Your task to perform on an android device: turn off picture-in-picture Image 0: 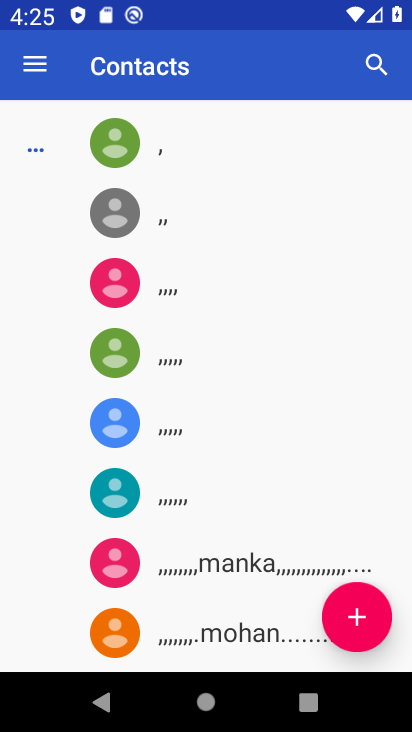
Step 0: press home button
Your task to perform on an android device: turn off picture-in-picture Image 1: 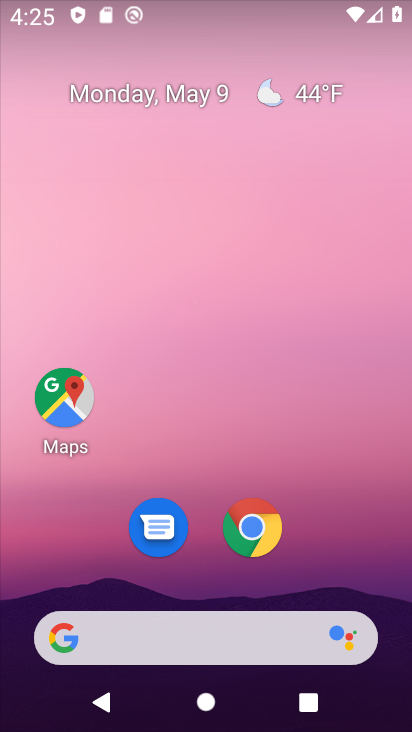
Step 1: click (253, 531)
Your task to perform on an android device: turn off picture-in-picture Image 2: 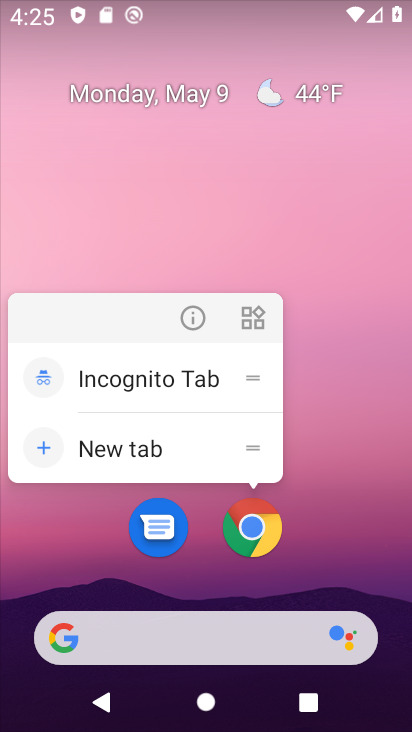
Step 2: click (191, 310)
Your task to perform on an android device: turn off picture-in-picture Image 3: 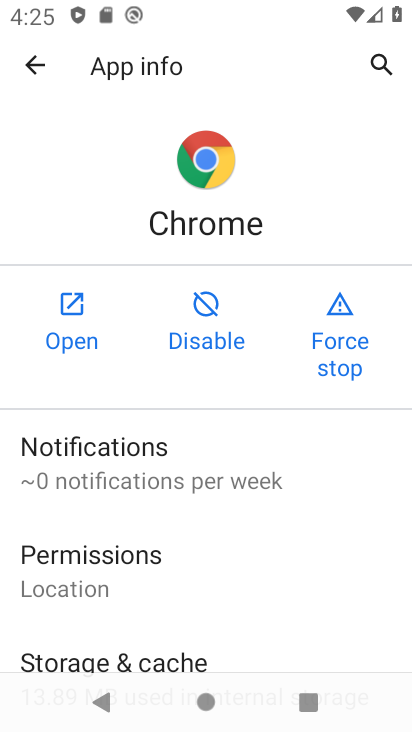
Step 3: drag from (138, 648) to (153, 45)
Your task to perform on an android device: turn off picture-in-picture Image 4: 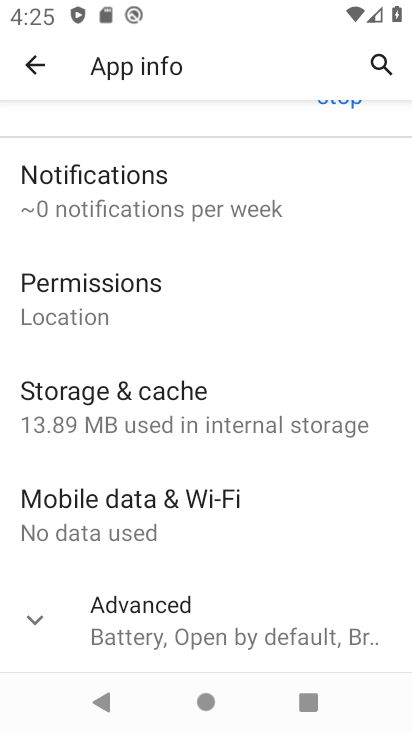
Step 4: click (132, 619)
Your task to perform on an android device: turn off picture-in-picture Image 5: 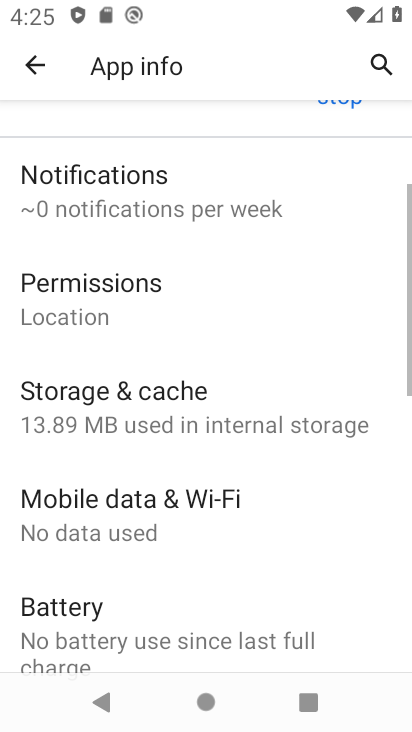
Step 5: drag from (132, 619) to (226, 101)
Your task to perform on an android device: turn off picture-in-picture Image 6: 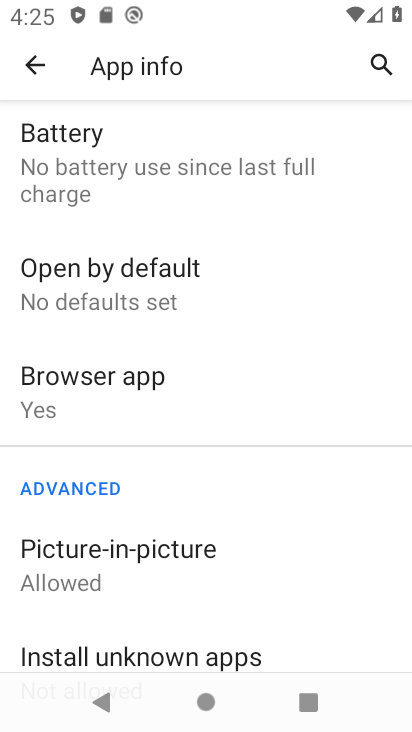
Step 6: click (142, 596)
Your task to perform on an android device: turn off picture-in-picture Image 7: 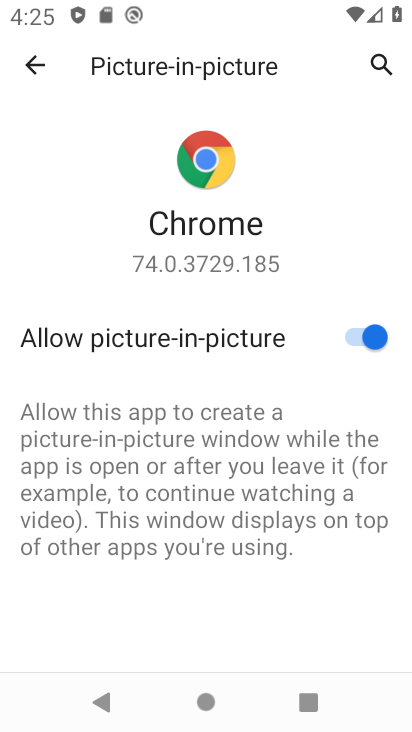
Step 7: click (368, 341)
Your task to perform on an android device: turn off picture-in-picture Image 8: 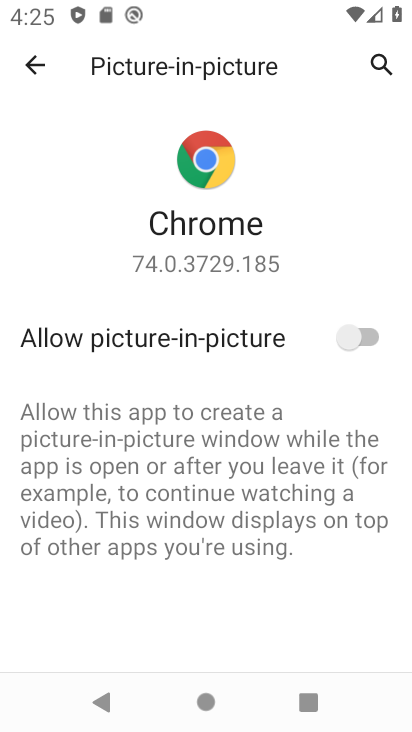
Step 8: task complete